Your task to perform on an android device: Open notification settings Image 0: 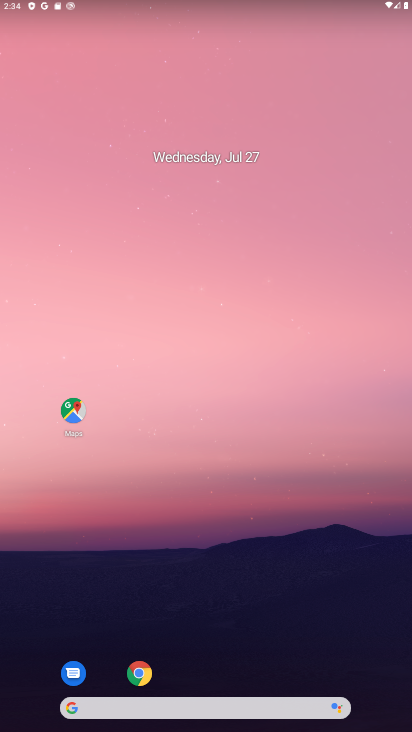
Step 0: drag from (62, 719) to (144, 204)
Your task to perform on an android device: Open notification settings Image 1: 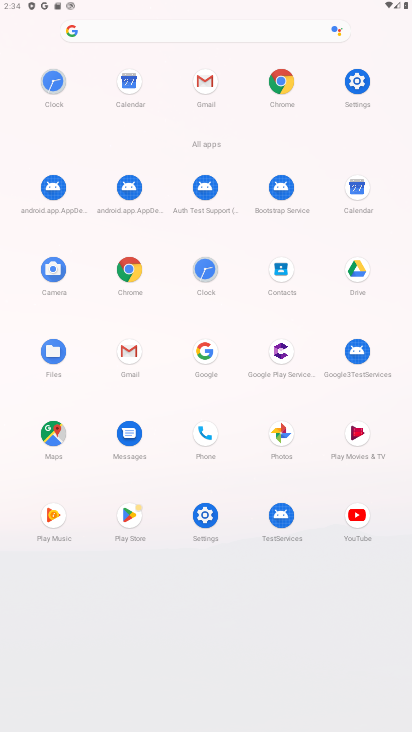
Step 1: click (357, 86)
Your task to perform on an android device: Open notification settings Image 2: 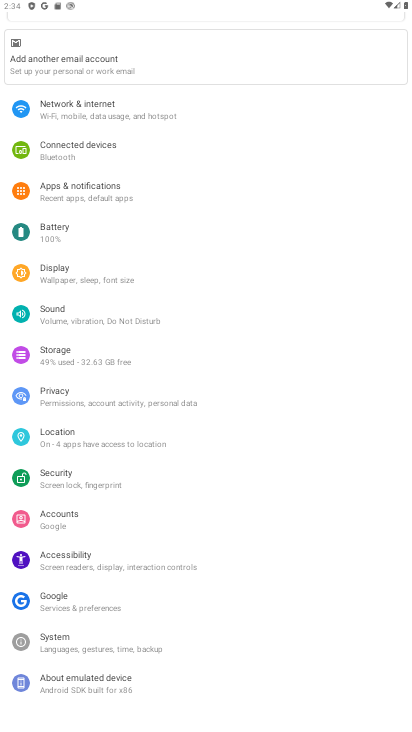
Step 2: click (225, 180)
Your task to perform on an android device: Open notification settings Image 3: 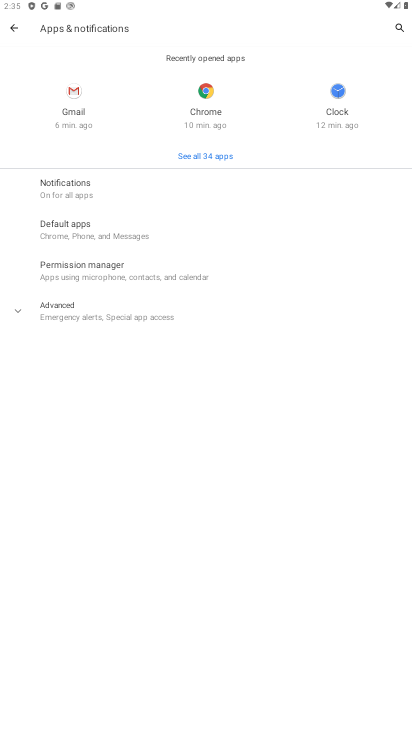
Step 3: task complete